Your task to perform on an android device: turn notification dots on Image 0: 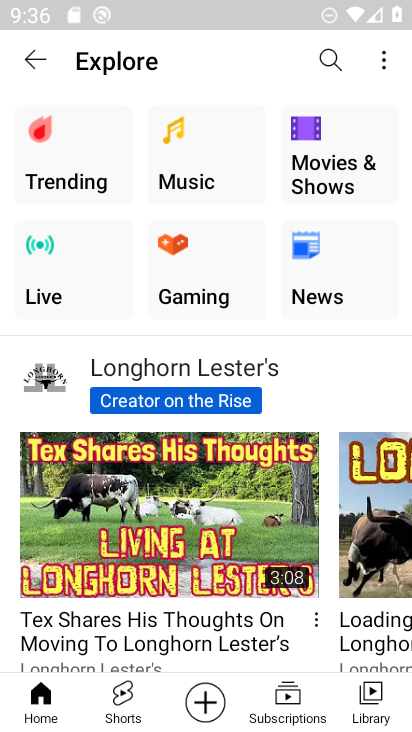
Step 0: press back button
Your task to perform on an android device: turn notification dots on Image 1: 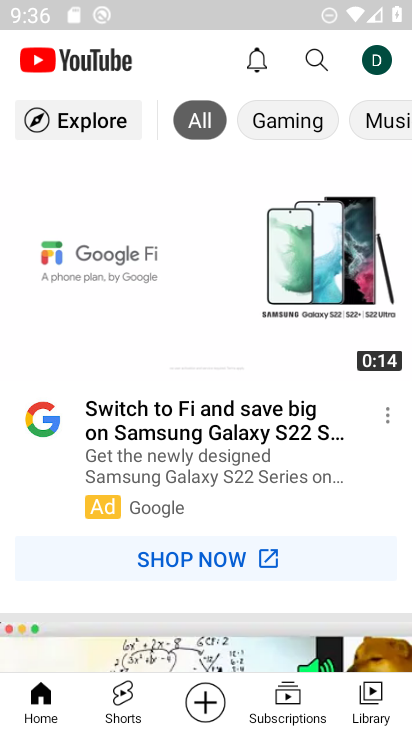
Step 1: press back button
Your task to perform on an android device: turn notification dots on Image 2: 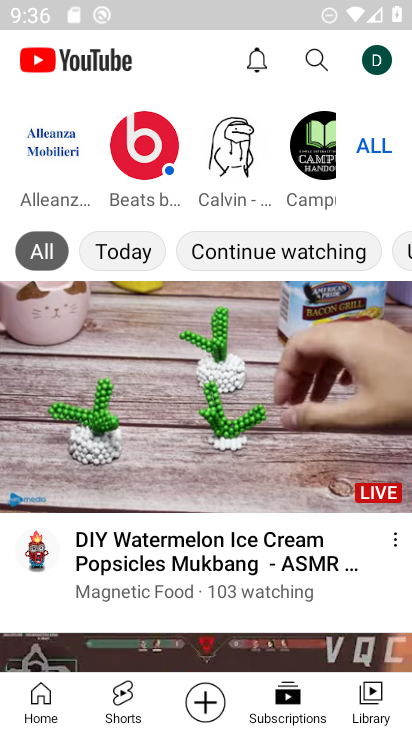
Step 2: press back button
Your task to perform on an android device: turn notification dots on Image 3: 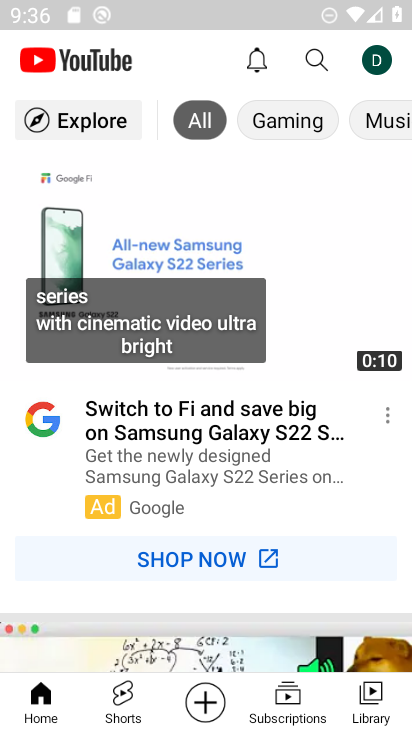
Step 3: press back button
Your task to perform on an android device: turn notification dots on Image 4: 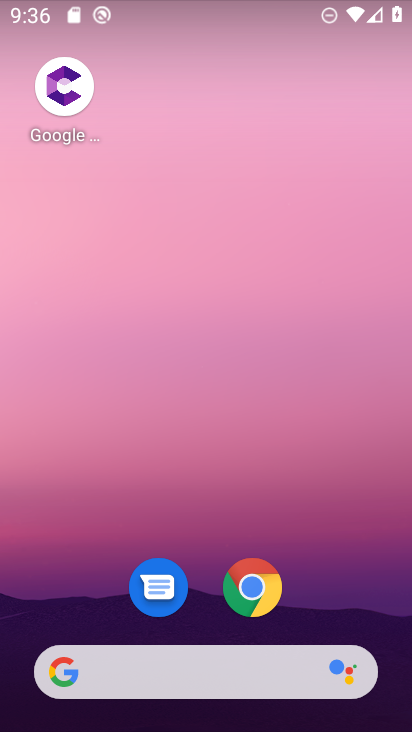
Step 4: drag from (191, 626) to (145, 8)
Your task to perform on an android device: turn notification dots on Image 5: 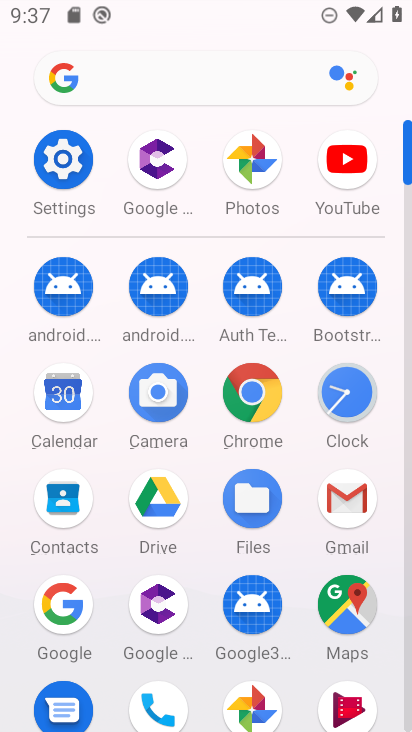
Step 5: click (85, 167)
Your task to perform on an android device: turn notification dots on Image 6: 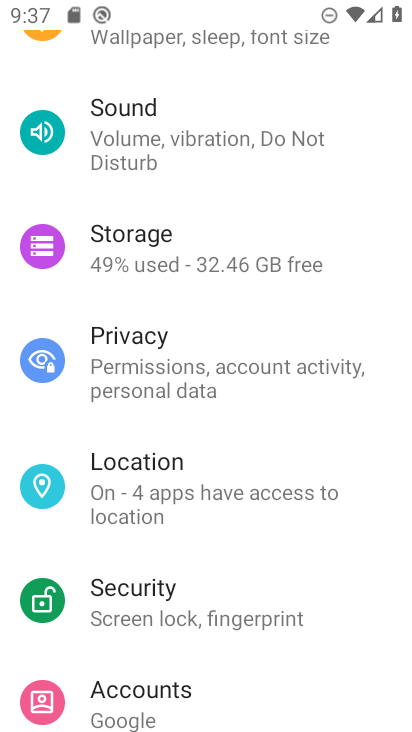
Step 6: drag from (155, 596) to (64, 78)
Your task to perform on an android device: turn notification dots on Image 7: 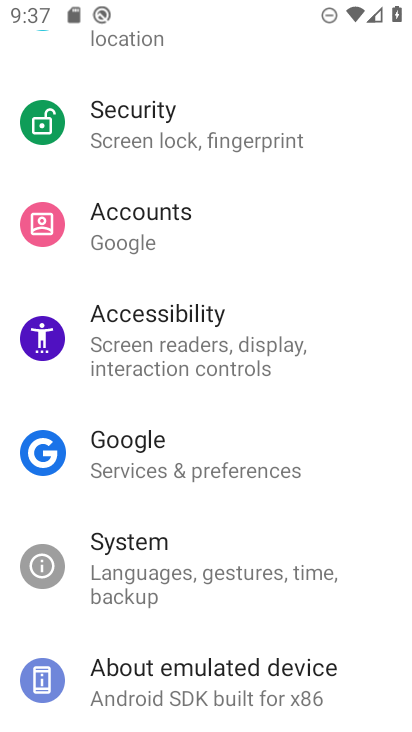
Step 7: drag from (156, 173) to (149, 713)
Your task to perform on an android device: turn notification dots on Image 8: 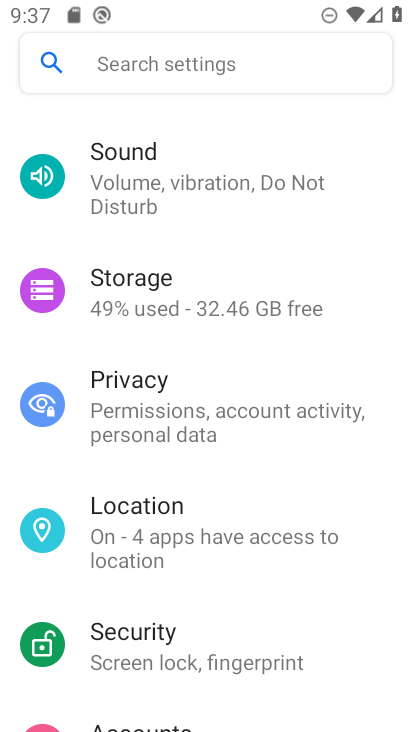
Step 8: drag from (137, 201) to (137, 723)
Your task to perform on an android device: turn notification dots on Image 9: 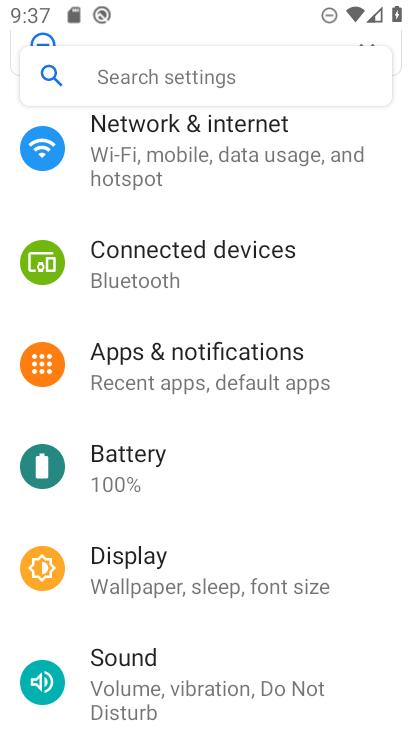
Step 9: click (160, 362)
Your task to perform on an android device: turn notification dots on Image 10: 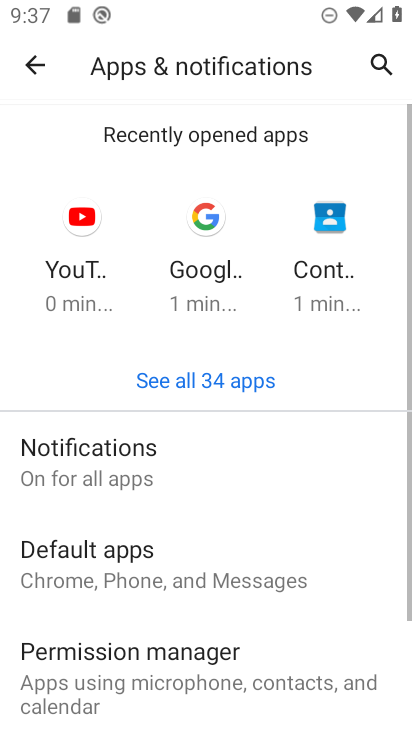
Step 10: click (140, 469)
Your task to perform on an android device: turn notification dots on Image 11: 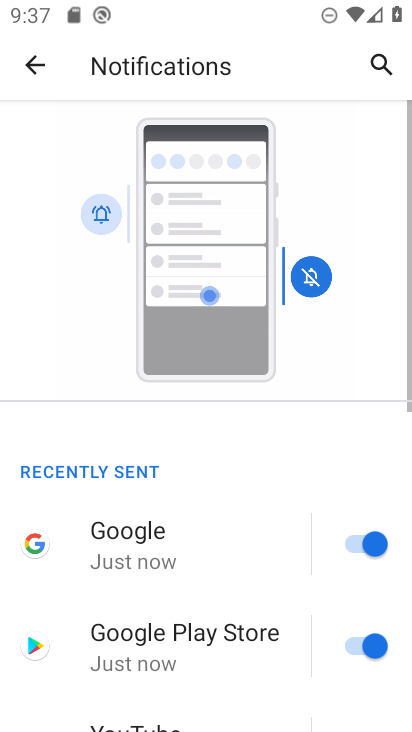
Step 11: drag from (156, 594) to (99, 24)
Your task to perform on an android device: turn notification dots on Image 12: 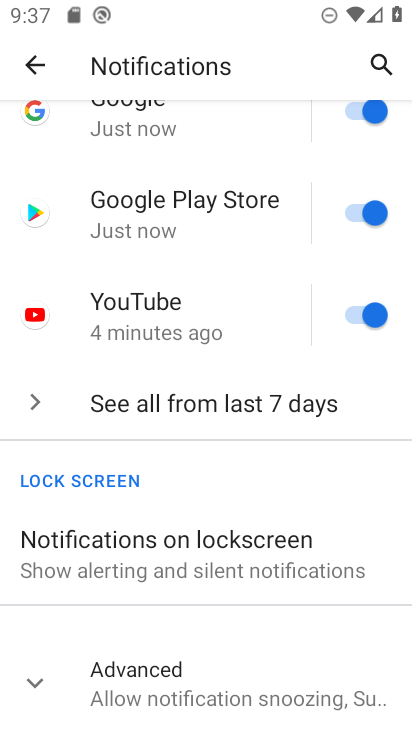
Step 12: click (162, 664)
Your task to perform on an android device: turn notification dots on Image 13: 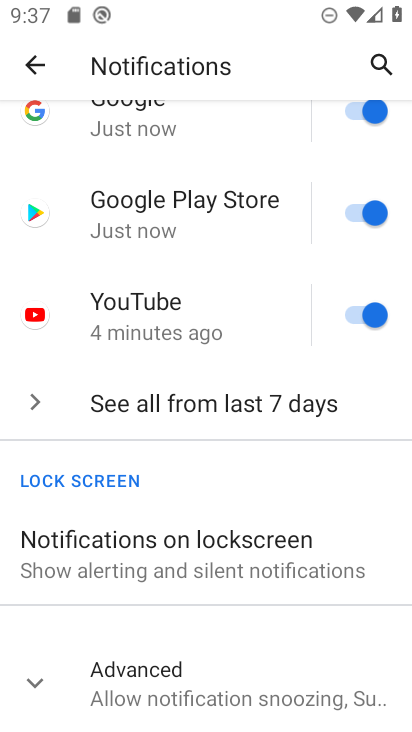
Step 13: task complete